Your task to perform on an android device: turn pop-ups on in chrome Image 0: 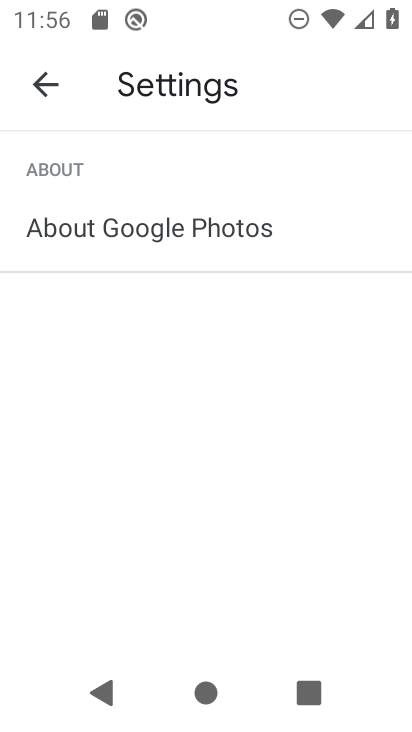
Step 0: press home button
Your task to perform on an android device: turn pop-ups on in chrome Image 1: 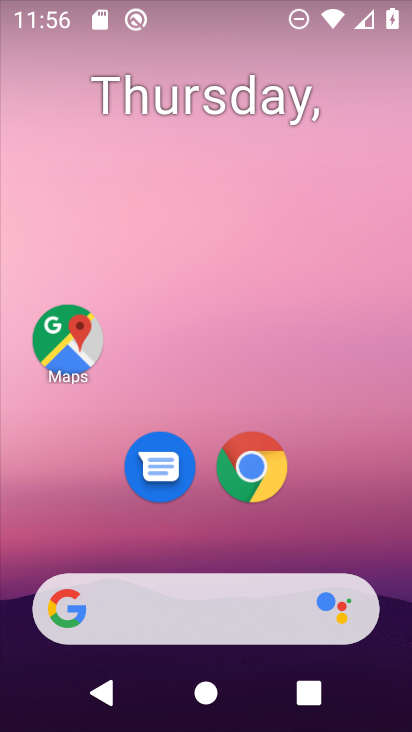
Step 1: click (252, 467)
Your task to perform on an android device: turn pop-ups on in chrome Image 2: 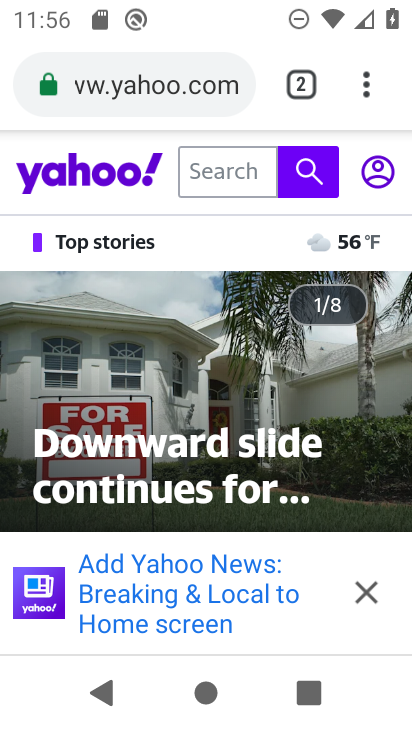
Step 2: click (371, 88)
Your task to perform on an android device: turn pop-ups on in chrome Image 3: 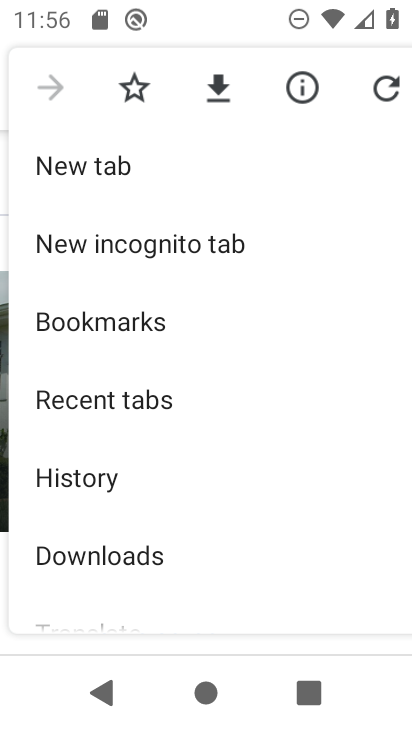
Step 3: drag from (217, 488) to (227, 99)
Your task to perform on an android device: turn pop-ups on in chrome Image 4: 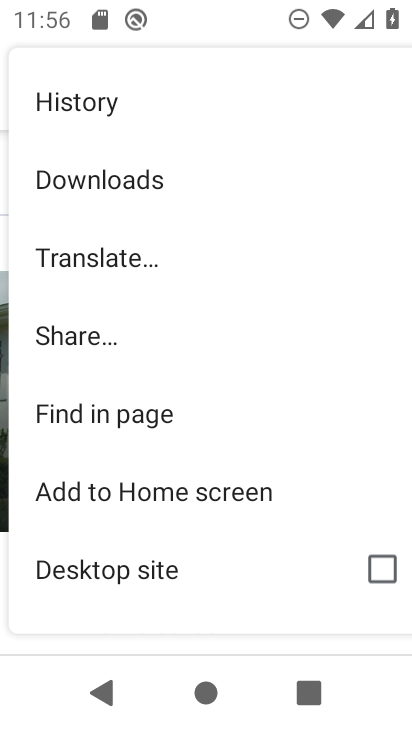
Step 4: drag from (191, 515) to (204, 170)
Your task to perform on an android device: turn pop-ups on in chrome Image 5: 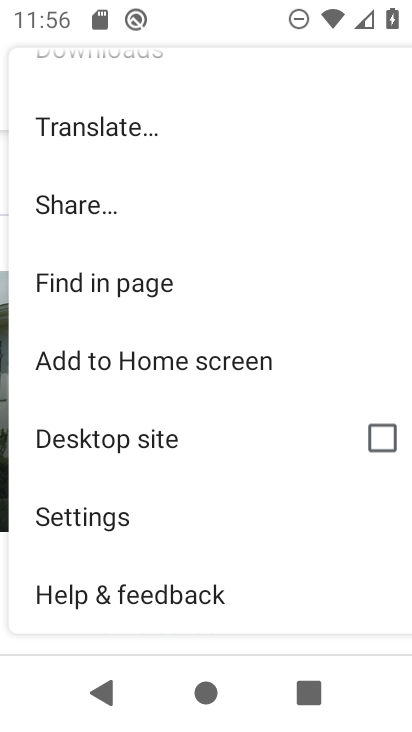
Step 5: click (118, 521)
Your task to perform on an android device: turn pop-ups on in chrome Image 6: 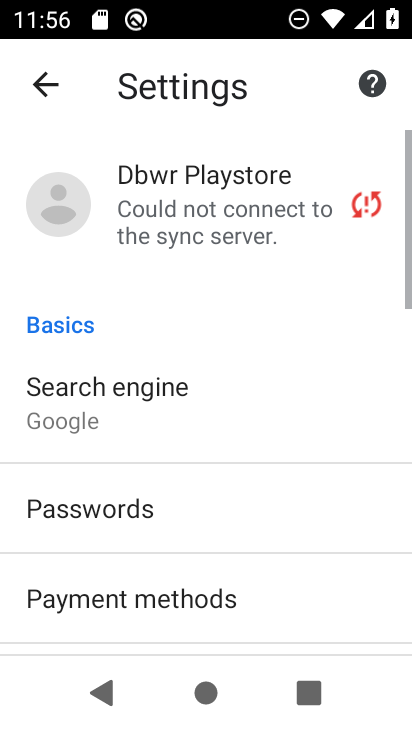
Step 6: drag from (201, 590) to (190, 47)
Your task to perform on an android device: turn pop-ups on in chrome Image 7: 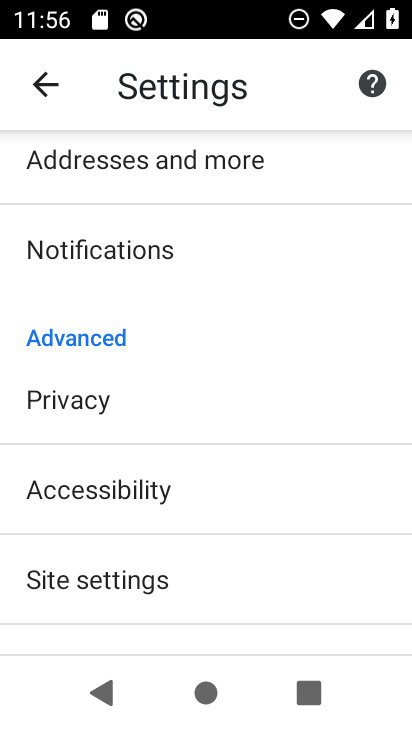
Step 7: drag from (164, 538) to (170, 159)
Your task to perform on an android device: turn pop-ups on in chrome Image 8: 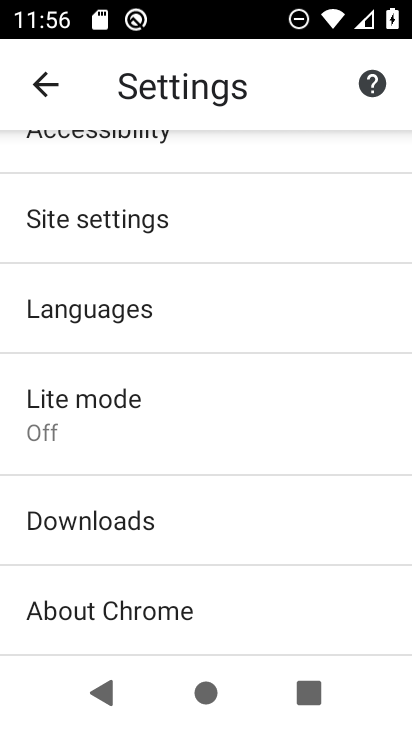
Step 8: click (102, 222)
Your task to perform on an android device: turn pop-ups on in chrome Image 9: 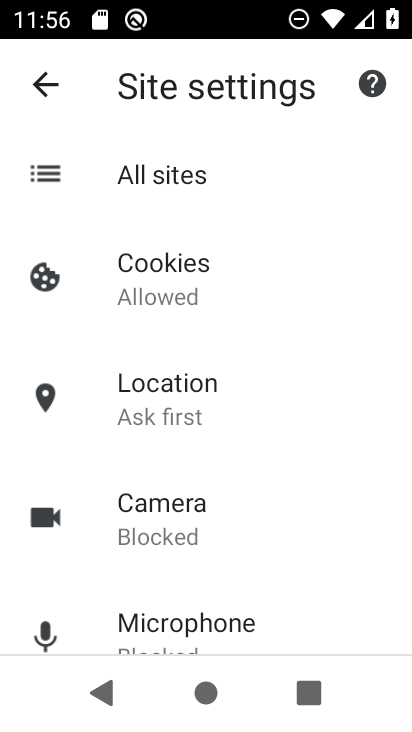
Step 9: drag from (245, 549) to (244, 98)
Your task to perform on an android device: turn pop-ups on in chrome Image 10: 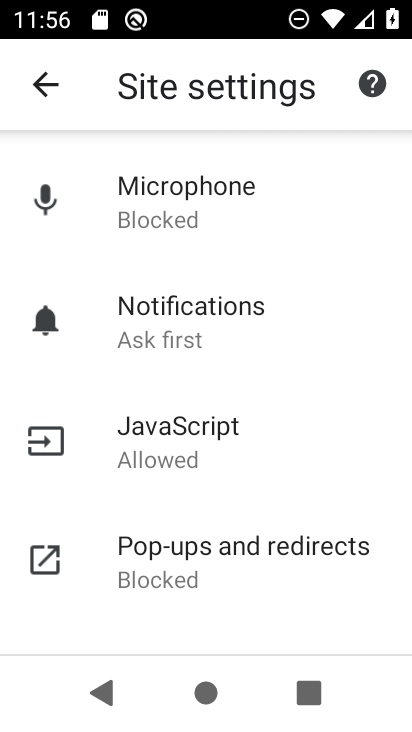
Step 10: click (183, 565)
Your task to perform on an android device: turn pop-ups on in chrome Image 11: 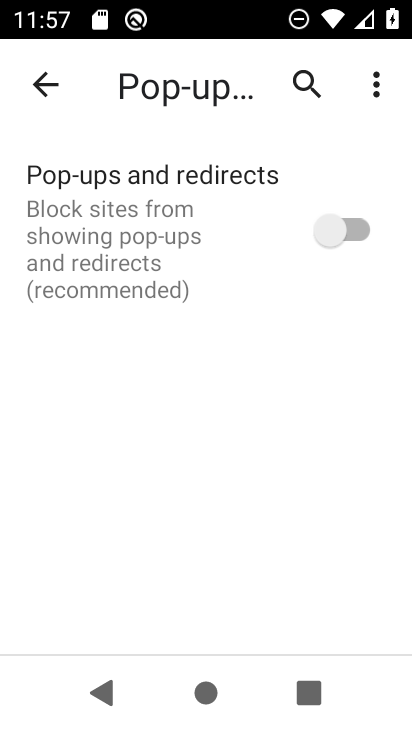
Step 11: click (338, 226)
Your task to perform on an android device: turn pop-ups on in chrome Image 12: 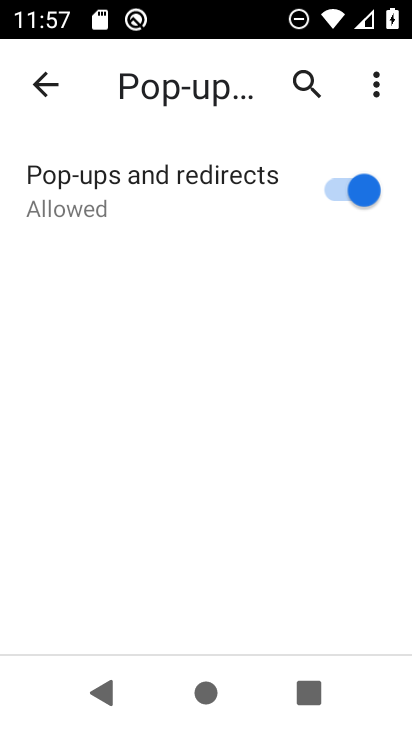
Step 12: task complete